Your task to perform on an android device: Clear the cart on costco. Image 0: 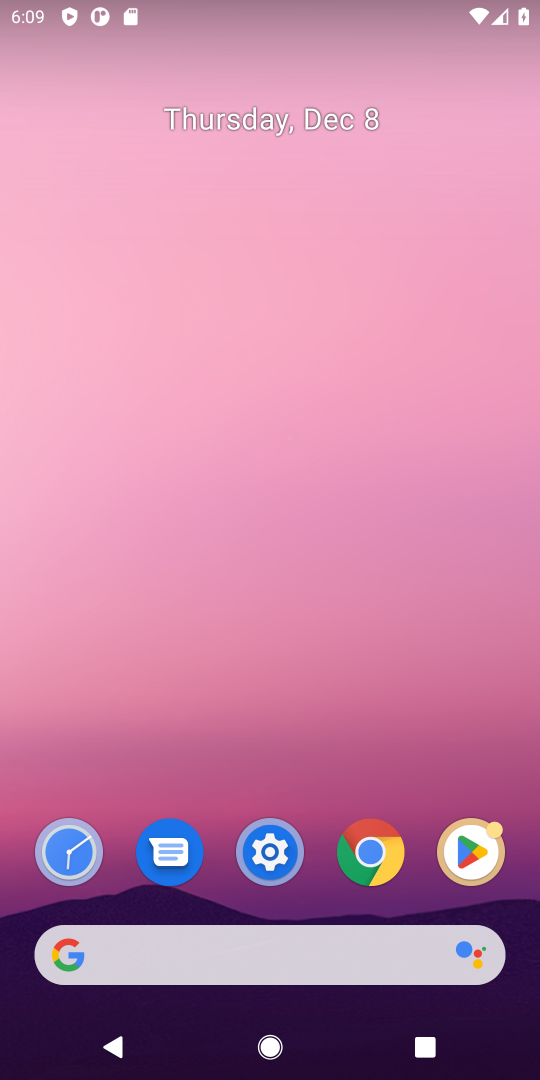
Step 0: click (277, 933)
Your task to perform on an android device: Clear the cart on costco. Image 1: 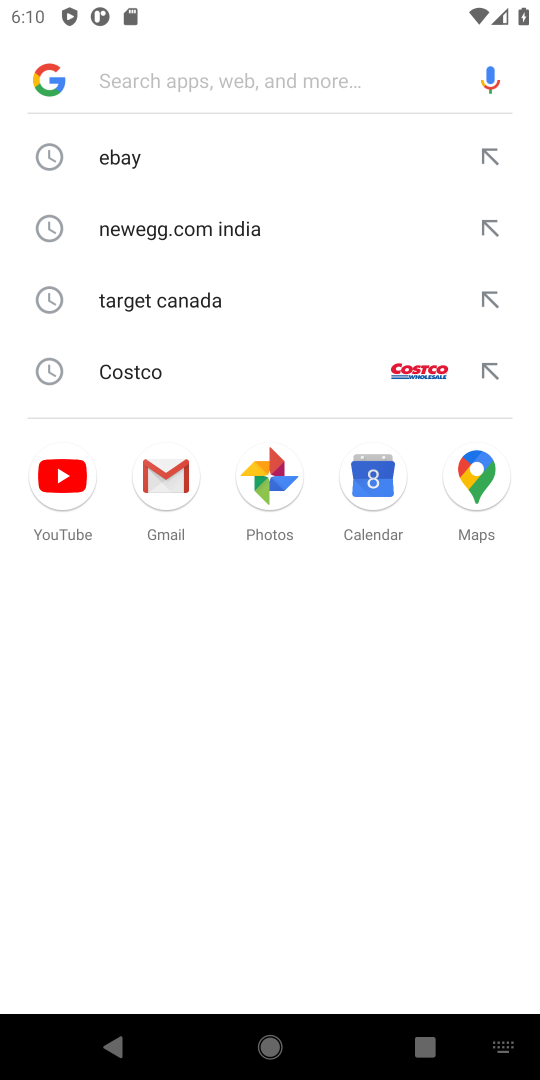
Step 1: type "costco.com"
Your task to perform on an android device: Clear the cart on costco. Image 2: 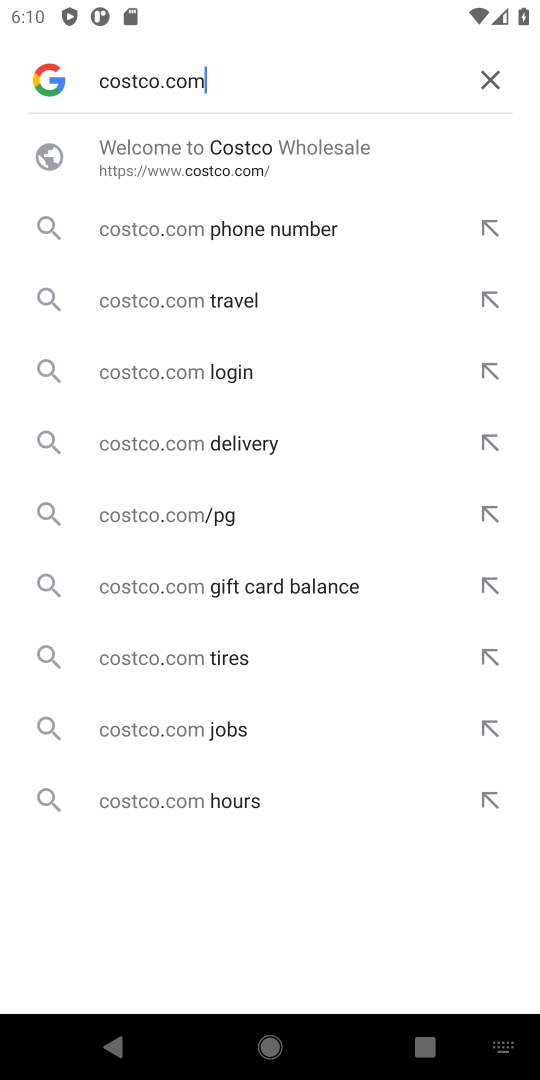
Step 2: click (225, 133)
Your task to perform on an android device: Clear the cart on costco. Image 3: 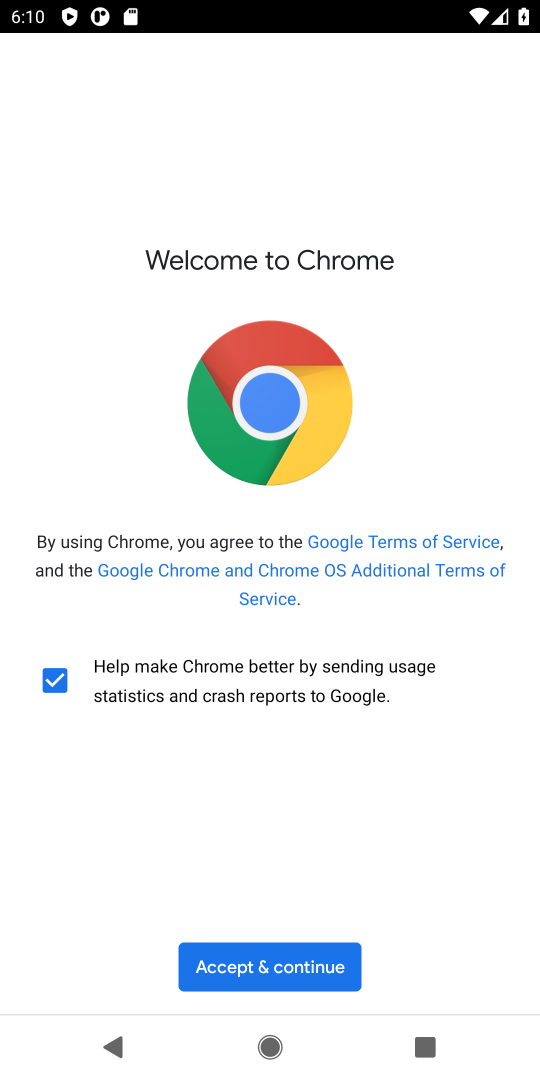
Step 3: click (278, 979)
Your task to perform on an android device: Clear the cart on costco. Image 4: 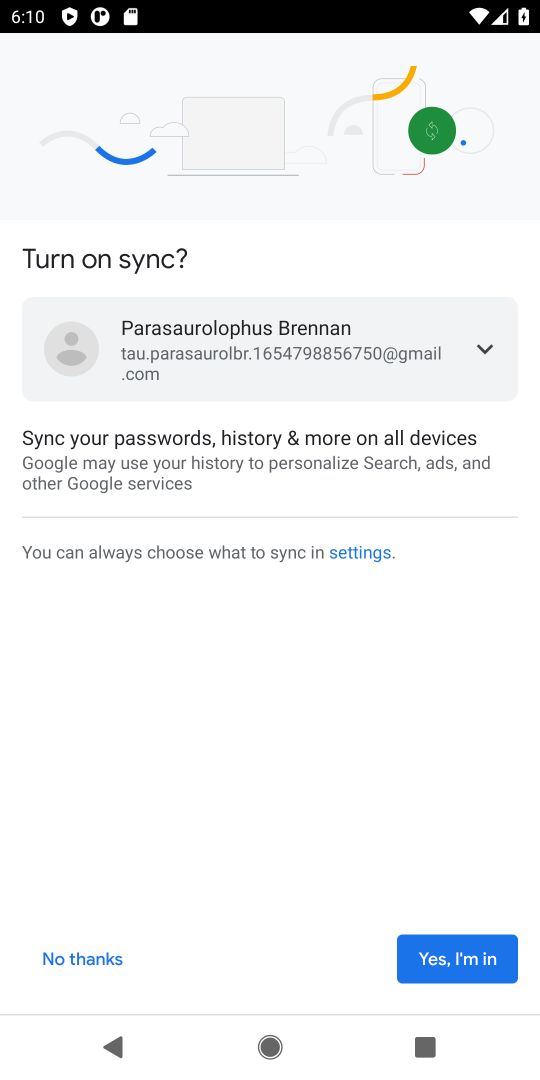
Step 4: click (467, 979)
Your task to perform on an android device: Clear the cart on costco. Image 5: 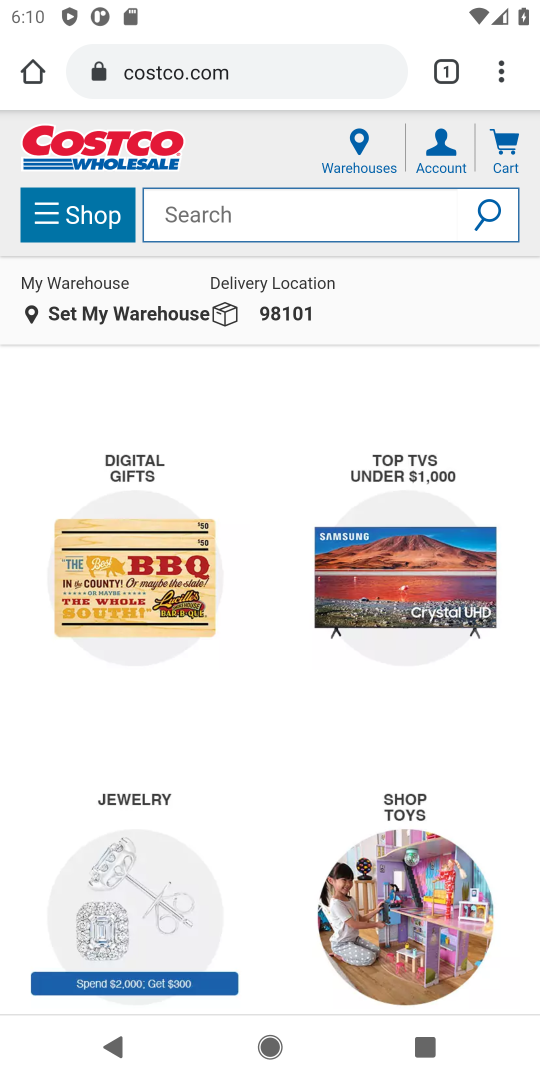
Step 5: click (211, 220)
Your task to perform on an android device: Clear the cart on costco. Image 6: 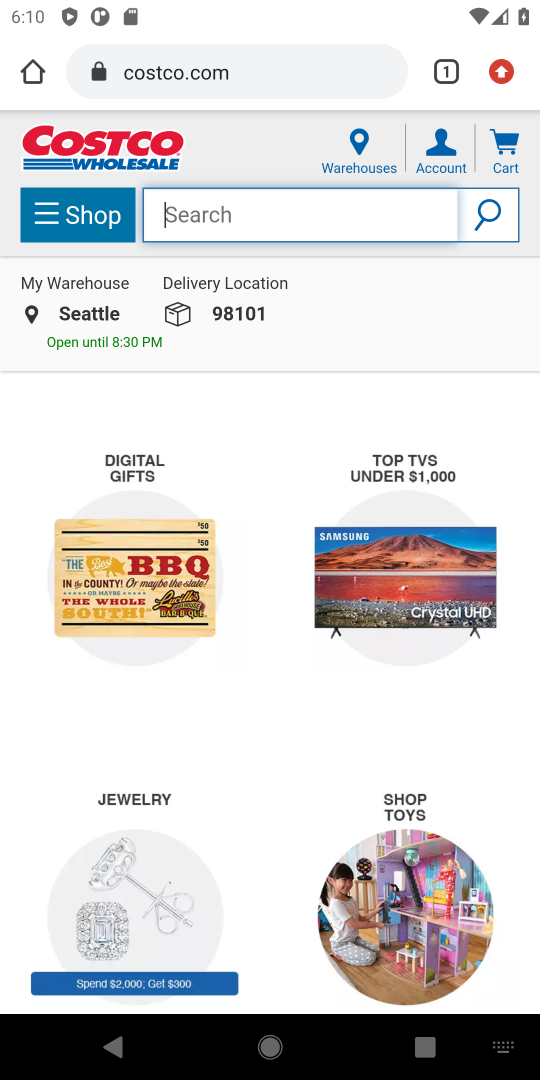
Step 6: click (497, 159)
Your task to perform on an android device: Clear the cart on costco. Image 7: 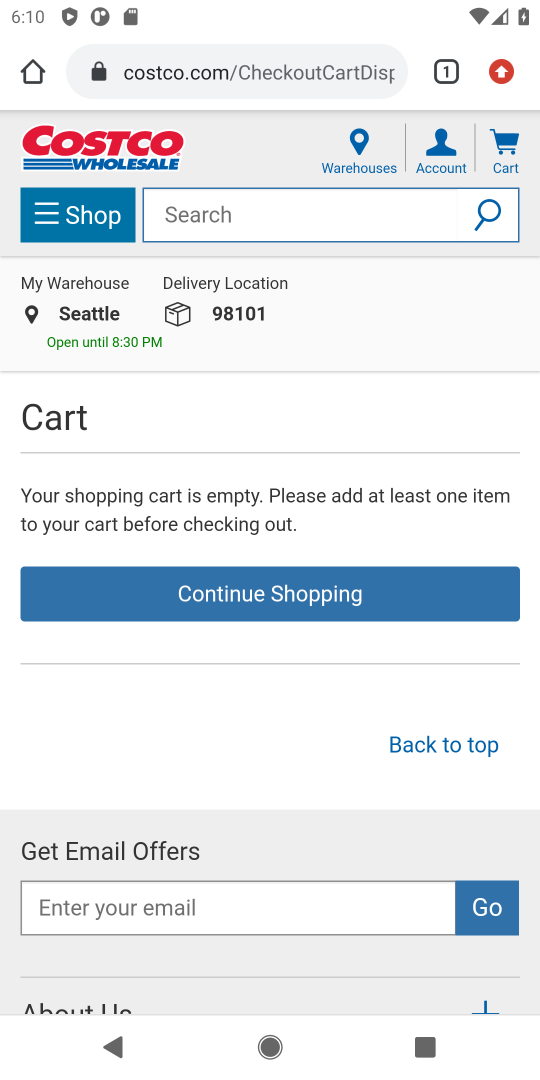
Step 7: task complete